Your task to perform on an android device: Open battery settings Image 0: 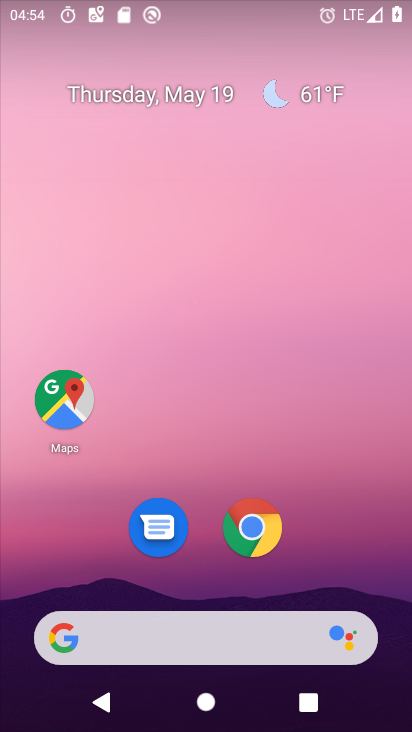
Step 0: drag from (207, 465) to (285, 17)
Your task to perform on an android device: Open battery settings Image 1: 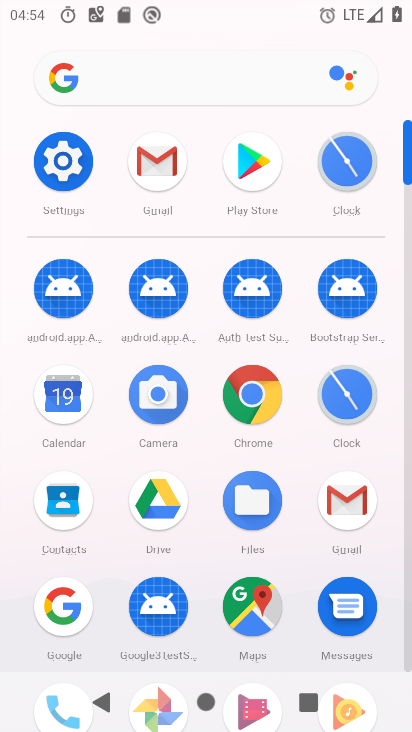
Step 1: click (71, 163)
Your task to perform on an android device: Open battery settings Image 2: 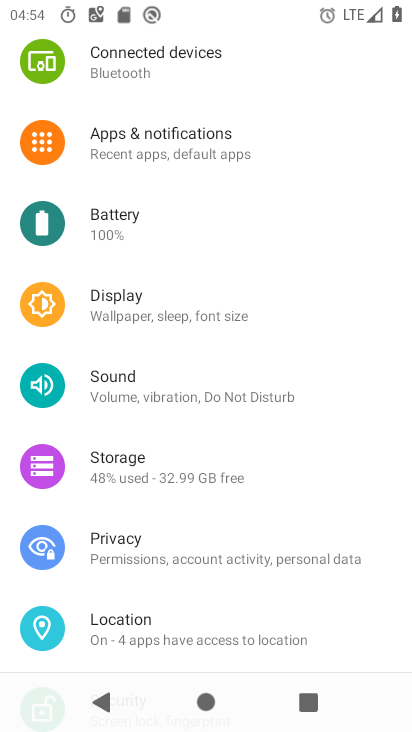
Step 2: drag from (198, 153) to (311, 96)
Your task to perform on an android device: Open battery settings Image 3: 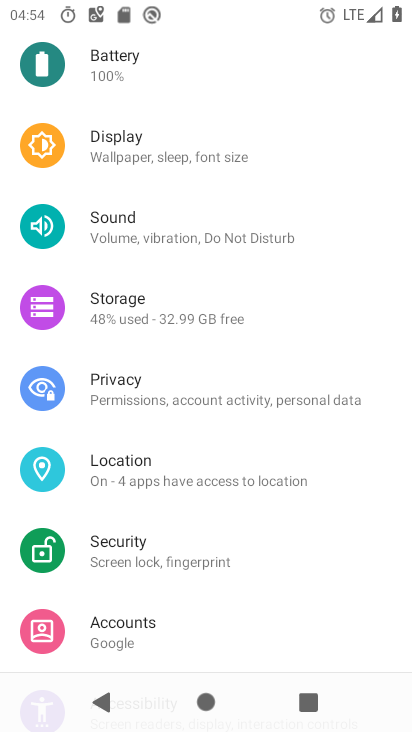
Step 3: drag from (187, 566) to (365, 109)
Your task to perform on an android device: Open battery settings Image 4: 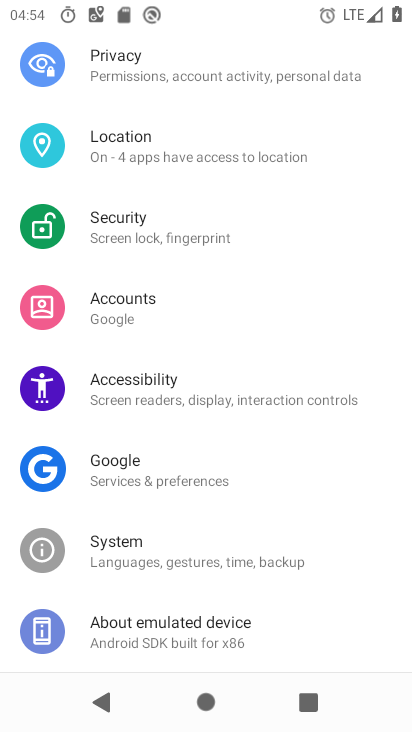
Step 4: drag from (170, 104) to (97, 719)
Your task to perform on an android device: Open battery settings Image 5: 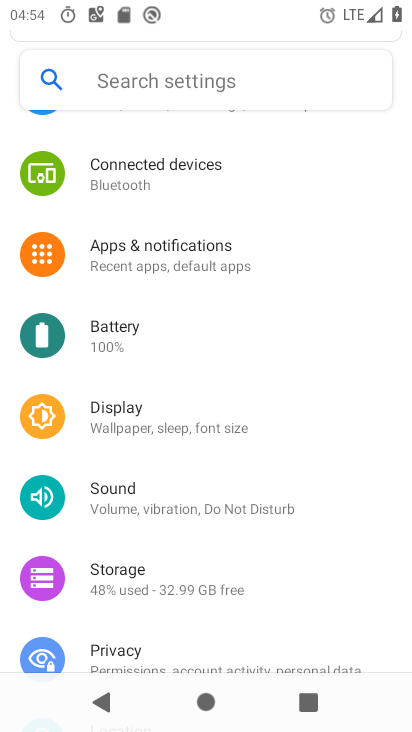
Step 5: click (112, 329)
Your task to perform on an android device: Open battery settings Image 6: 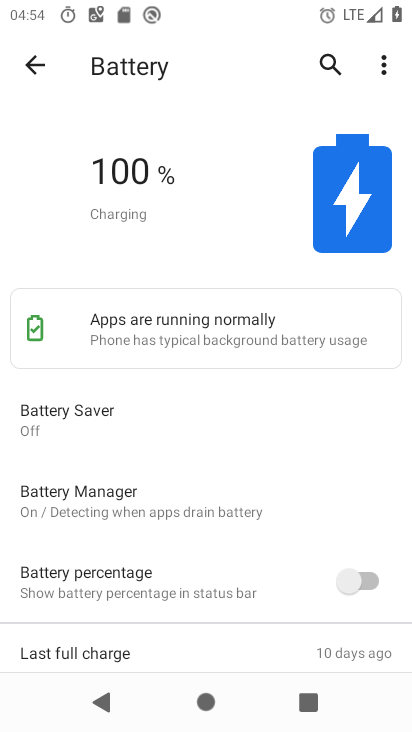
Step 6: task complete